Your task to perform on an android device: toggle sleep mode Image 0: 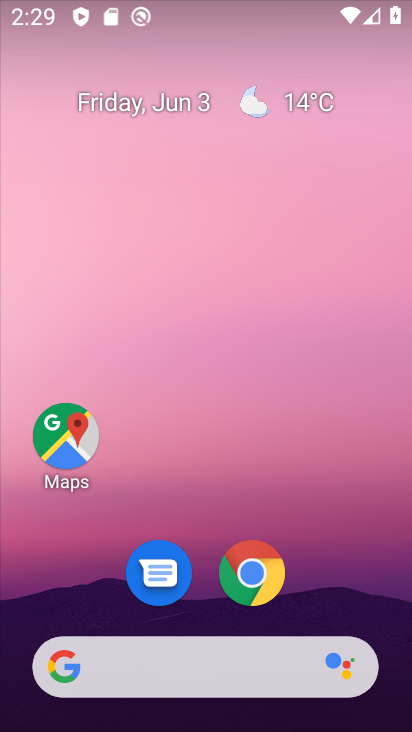
Step 0: drag from (139, 659) to (281, 127)
Your task to perform on an android device: toggle sleep mode Image 1: 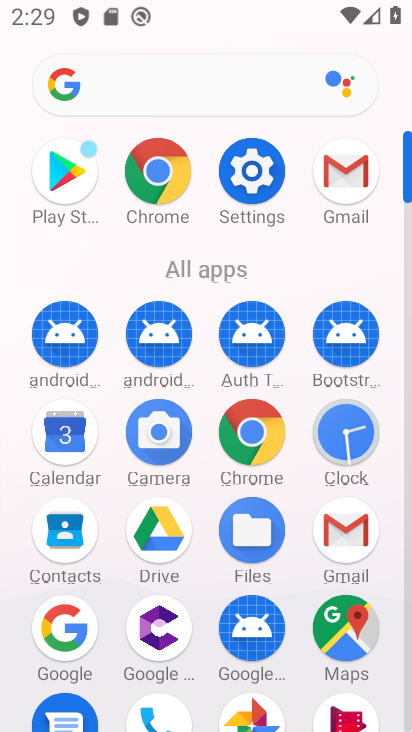
Step 1: click (263, 197)
Your task to perform on an android device: toggle sleep mode Image 2: 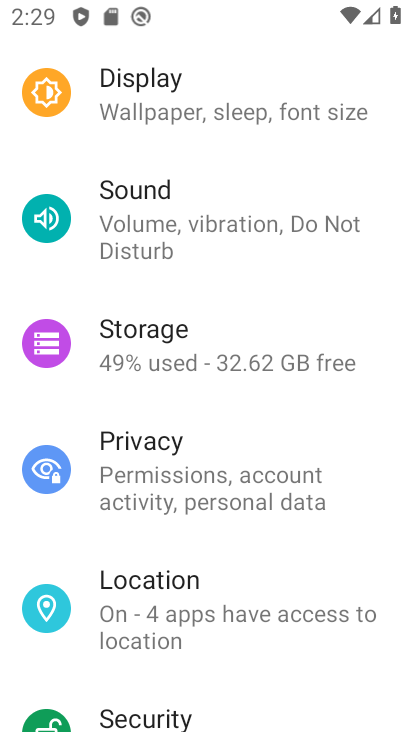
Step 2: click (240, 108)
Your task to perform on an android device: toggle sleep mode Image 3: 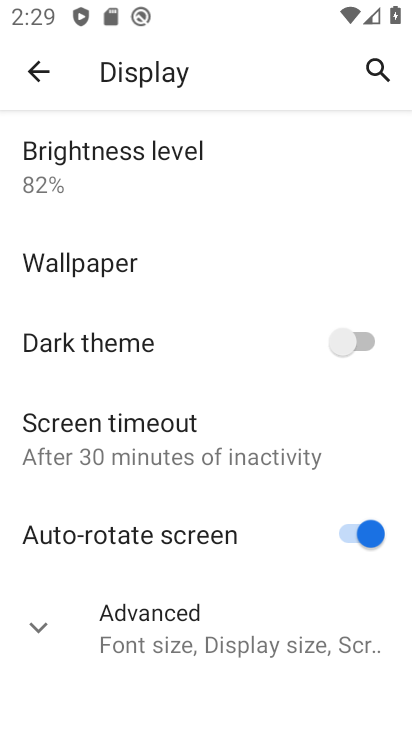
Step 3: task complete